Your task to perform on an android device: Go to Maps Image 0: 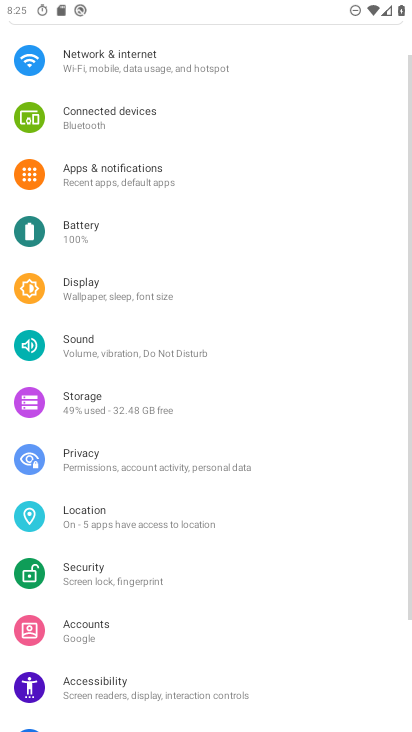
Step 0: press home button
Your task to perform on an android device: Go to Maps Image 1: 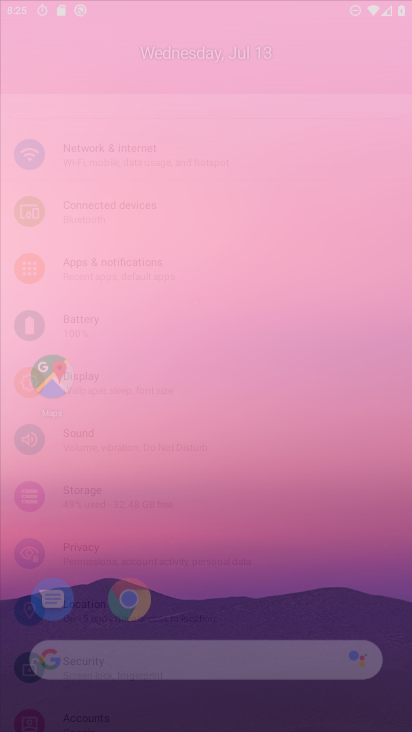
Step 1: drag from (396, 670) to (296, 48)
Your task to perform on an android device: Go to Maps Image 2: 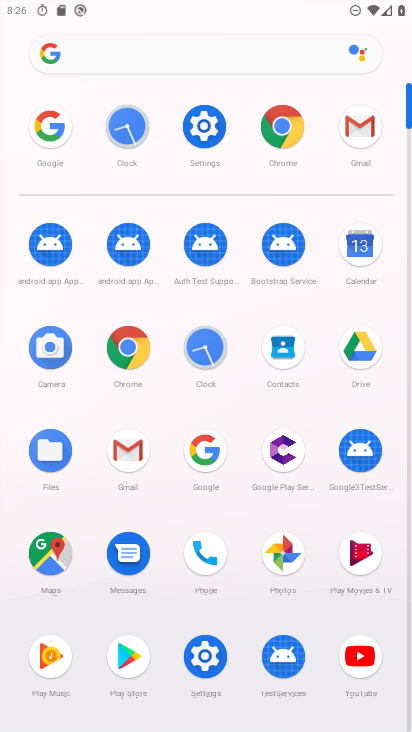
Step 2: click (54, 549)
Your task to perform on an android device: Go to Maps Image 3: 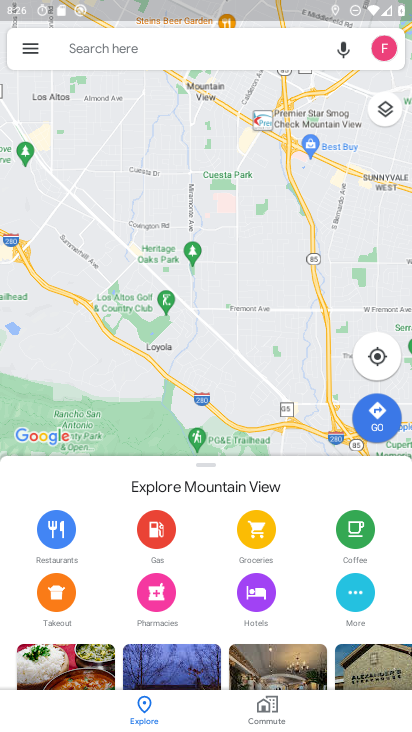
Step 3: task complete